Your task to perform on an android device: Open calendar and show me the second week of next month Image 0: 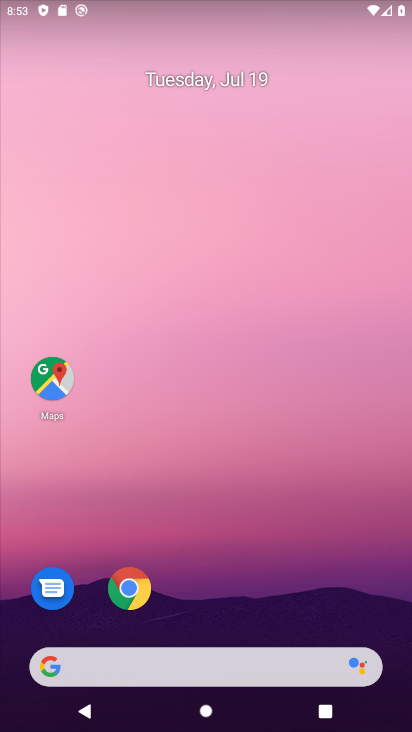
Step 0: drag from (180, 565) to (191, 112)
Your task to perform on an android device: Open calendar and show me the second week of next month Image 1: 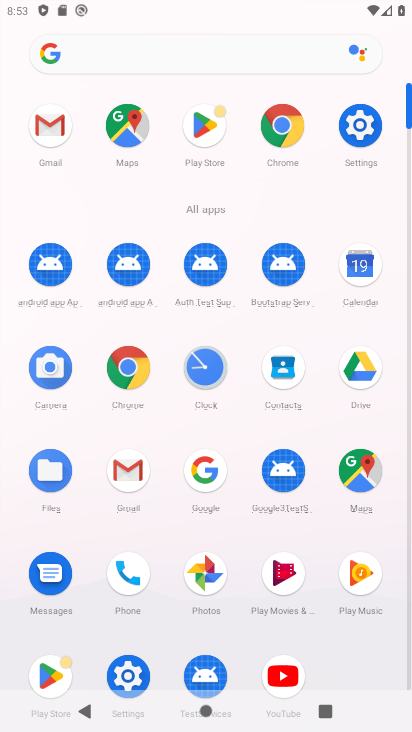
Step 1: click (366, 262)
Your task to perform on an android device: Open calendar and show me the second week of next month Image 2: 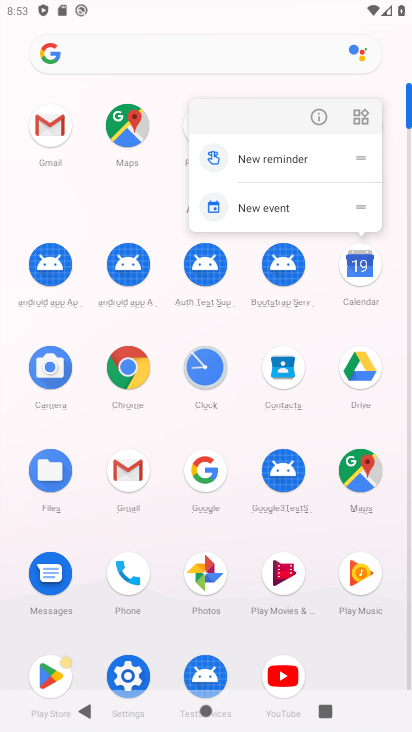
Step 2: click (366, 262)
Your task to perform on an android device: Open calendar and show me the second week of next month Image 3: 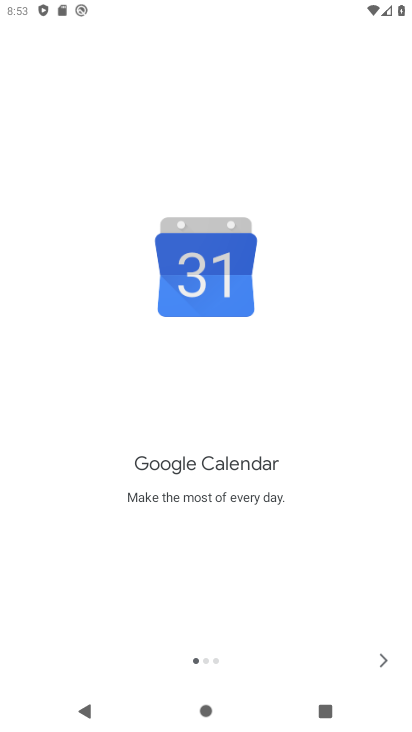
Step 3: click (375, 655)
Your task to perform on an android device: Open calendar and show me the second week of next month Image 4: 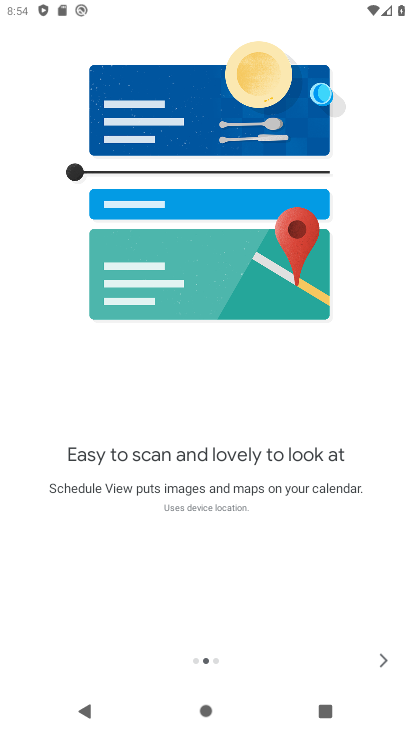
Step 4: click (369, 650)
Your task to perform on an android device: Open calendar and show me the second week of next month Image 5: 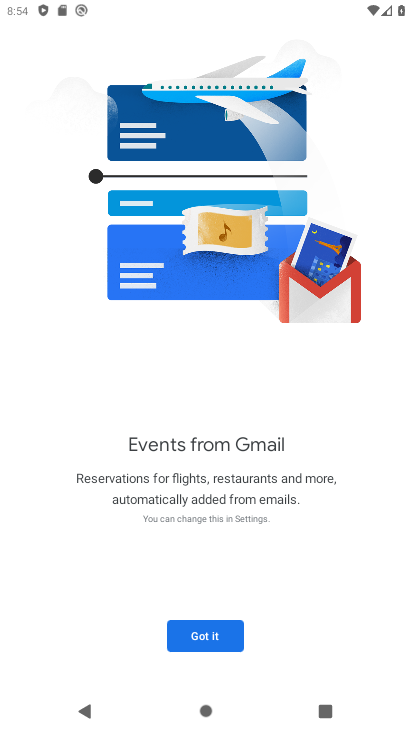
Step 5: click (200, 628)
Your task to perform on an android device: Open calendar and show me the second week of next month Image 6: 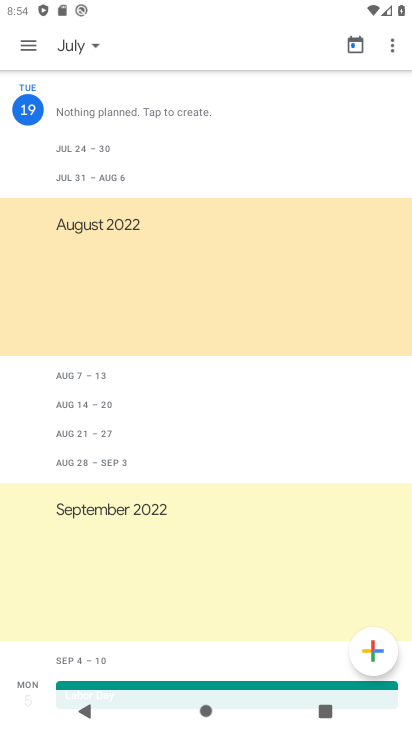
Step 6: click (79, 40)
Your task to perform on an android device: Open calendar and show me the second week of next month Image 7: 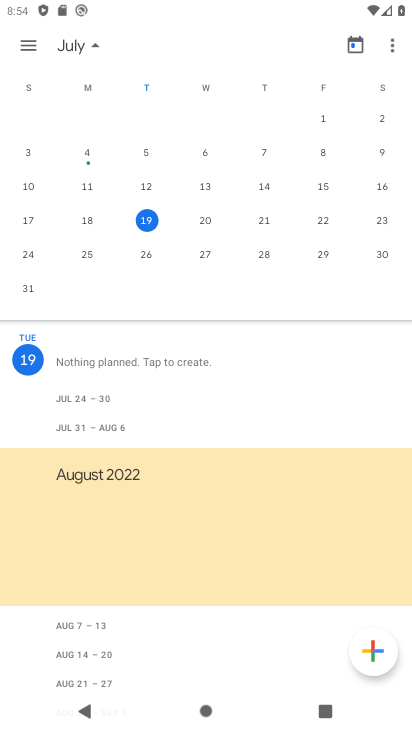
Step 7: drag from (330, 225) to (0, 272)
Your task to perform on an android device: Open calendar and show me the second week of next month Image 8: 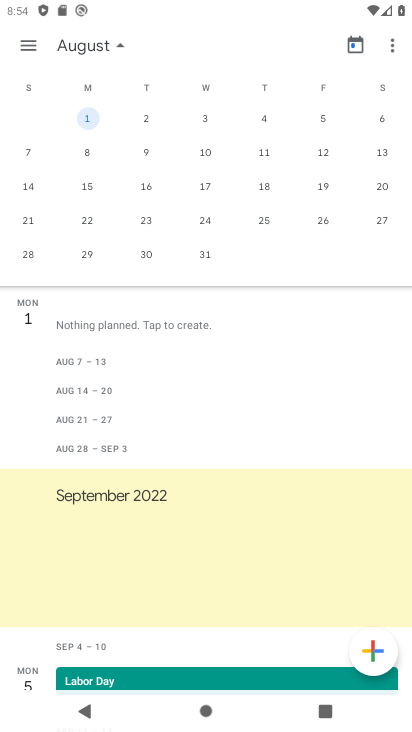
Step 8: click (29, 183)
Your task to perform on an android device: Open calendar and show me the second week of next month Image 9: 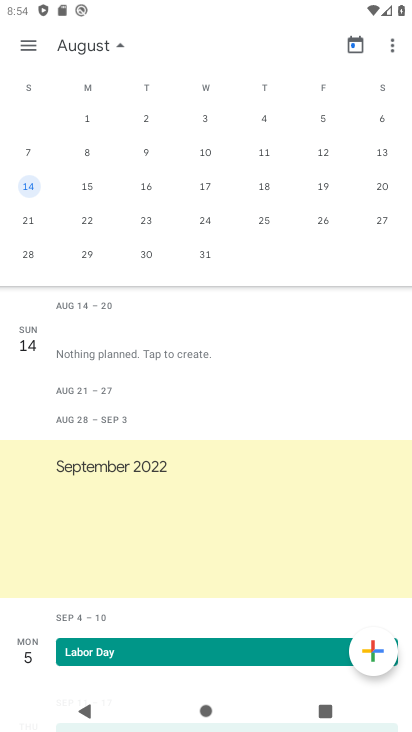
Step 9: task complete